Your task to perform on an android device: Open the calendar and show me this week's events? Image 0: 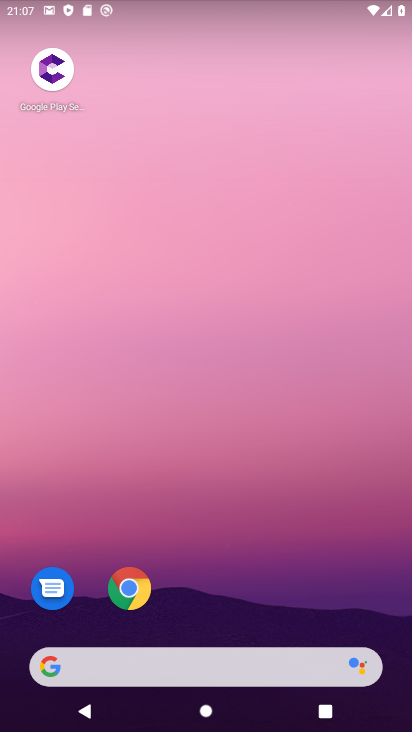
Step 0: drag from (236, 642) to (310, 46)
Your task to perform on an android device: Open the calendar and show me this week's events? Image 1: 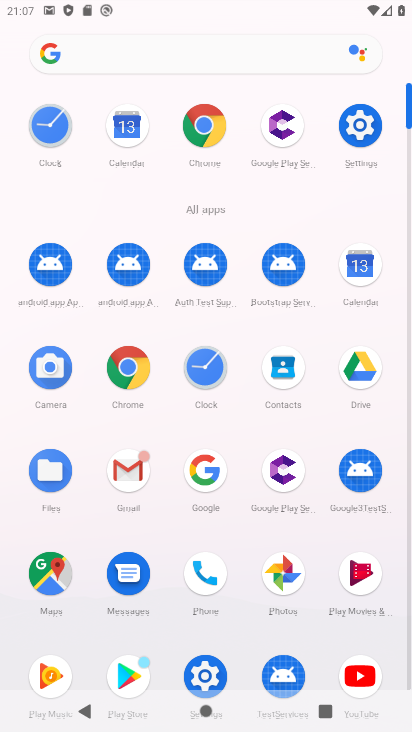
Step 1: click (362, 263)
Your task to perform on an android device: Open the calendar and show me this week's events? Image 2: 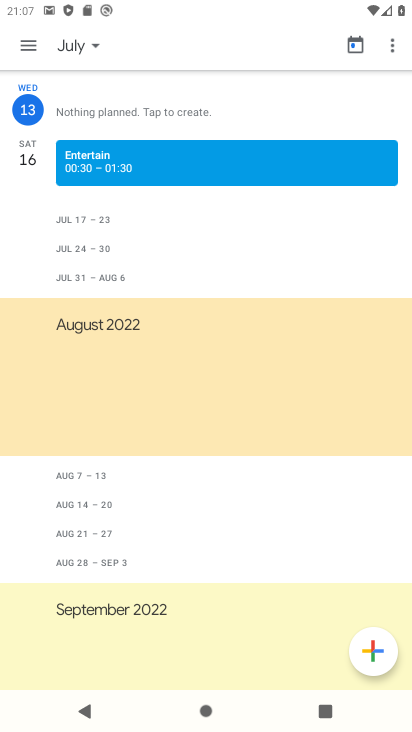
Step 2: task complete